Your task to perform on an android device: change your default location settings in chrome Image 0: 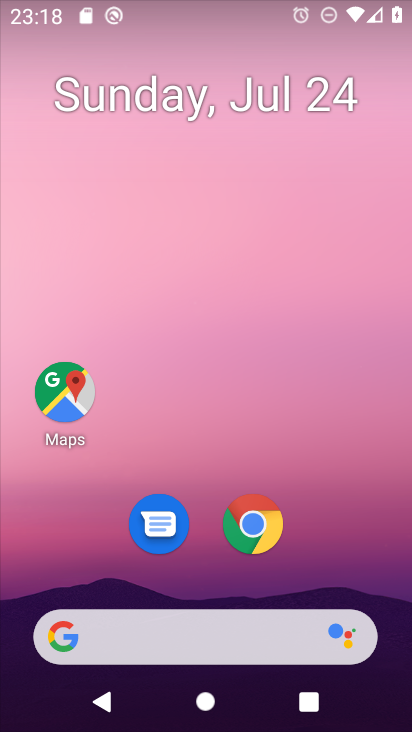
Step 0: press home button
Your task to perform on an android device: change your default location settings in chrome Image 1: 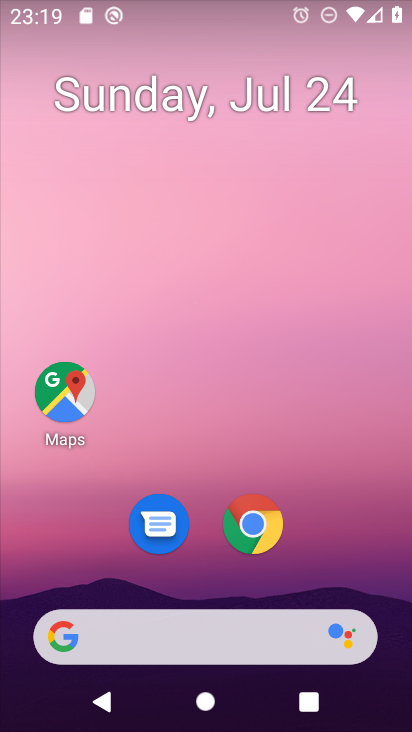
Step 1: drag from (212, 623) to (326, 77)
Your task to perform on an android device: change your default location settings in chrome Image 2: 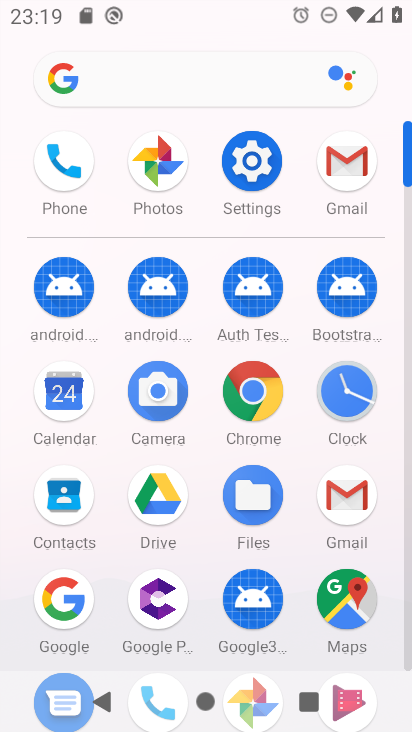
Step 2: click (252, 400)
Your task to perform on an android device: change your default location settings in chrome Image 3: 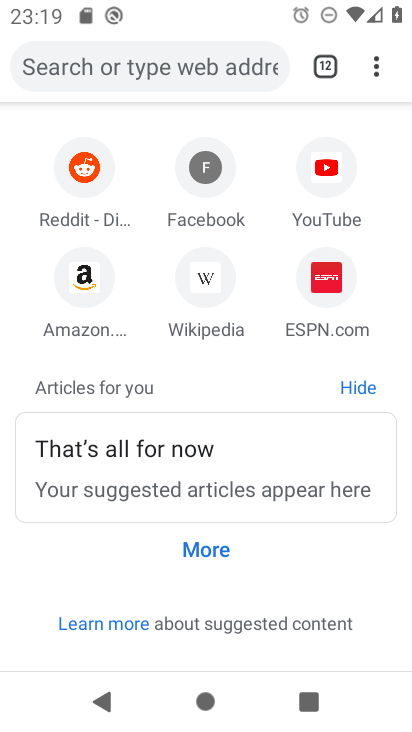
Step 3: drag from (374, 67) to (185, 562)
Your task to perform on an android device: change your default location settings in chrome Image 4: 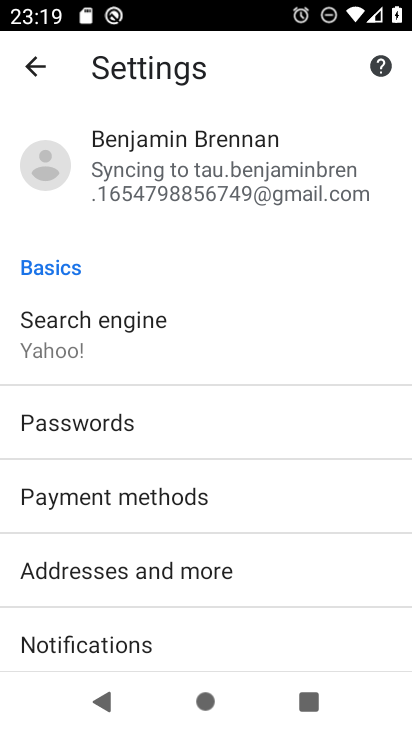
Step 4: drag from (190, 563) to (366, 138)
Your task to perform on an android device: change your default location settings in chrome Image 5: 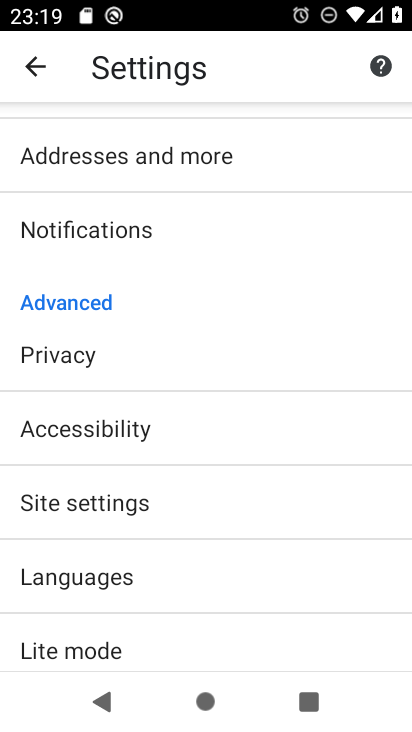
Step 5: click (145, 504)
Your task to perform on an android device: change your default location settings in chrome Image 6: 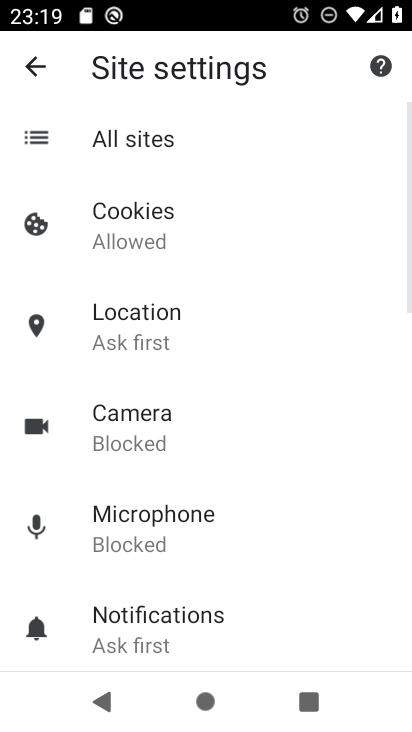
Step 6: drag from (216, 597) to (329, 219)
Your task to perform on an android device: change your default location settings in chrome Image 7: 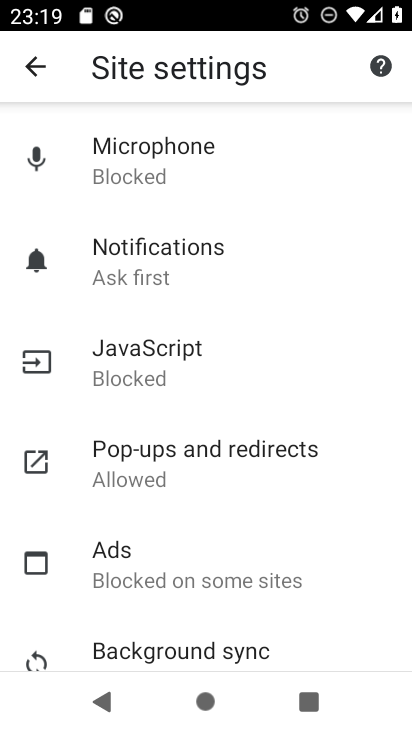
Step 7: drag from (260, 407) to (202, 568)
Your task to perform on an android device: change your default location settings in chrome Image 8: 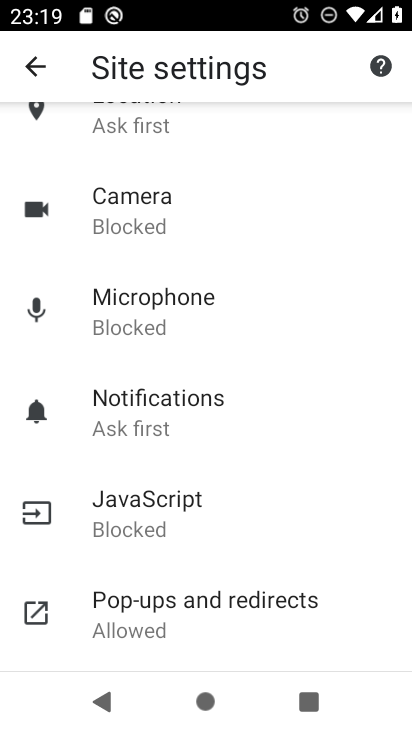
Step 8: drag from (211, 216) to (186, 549)
Your task to perform on an android device: change your default location settings in chrome Image 9: 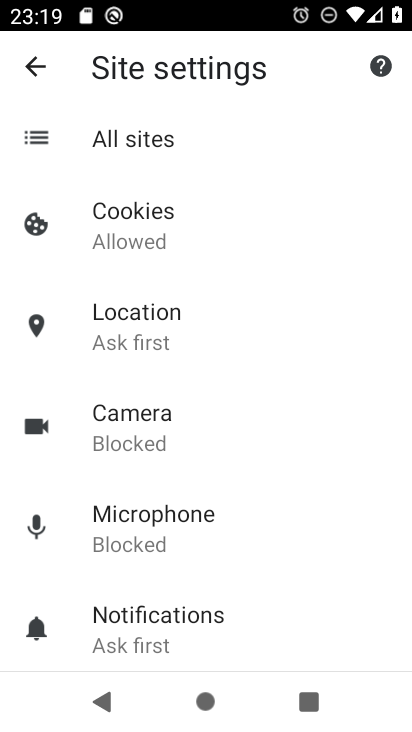
Step 9: click (156, 333)
Your task to perform on an android device: change your default location settings in chrome Image 10: 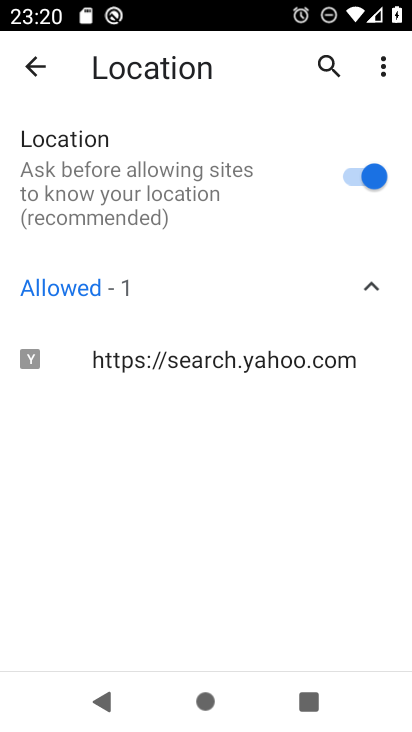
Step 10: click (354, 172)
Your task to perform on an android device: change your default location settings in chrome Image 11: 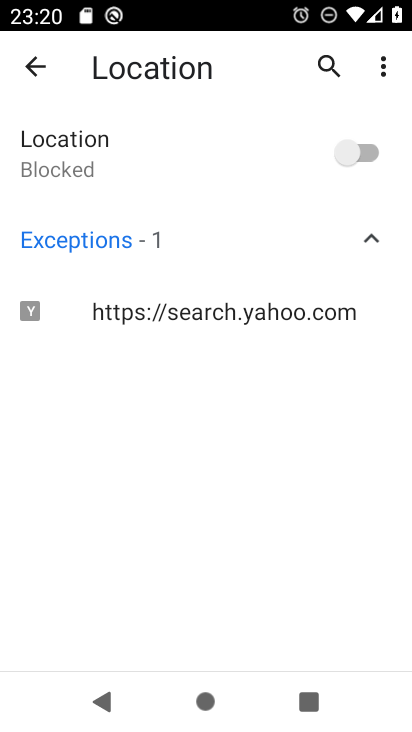
Step 11: task complete